Your task to perform on an android device: toggle improve location accuracy Image 0: 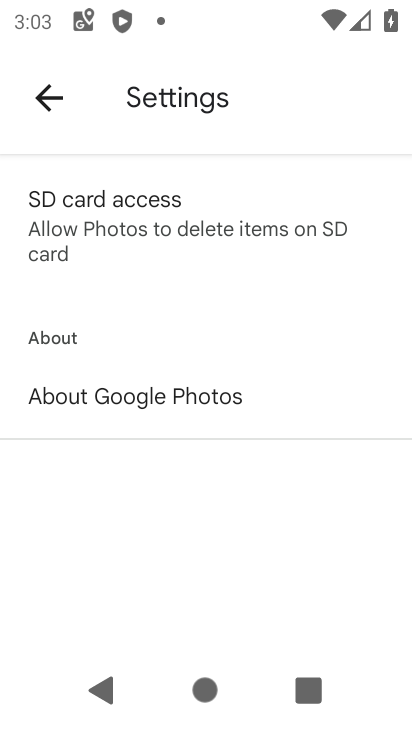
Step 0: press home button
Your task to perform on an android device: toggle improve location accuracy Image 1: 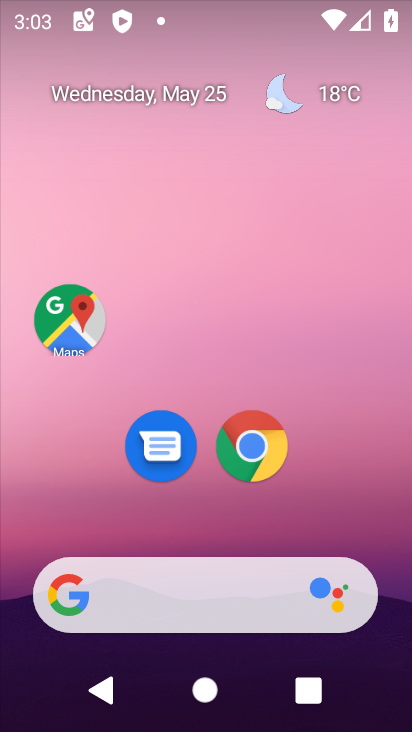
Step 1: drag from (251, 569) to (265, 80)
Your task to perform on an android device: toggle improve location accuracy Image 2: 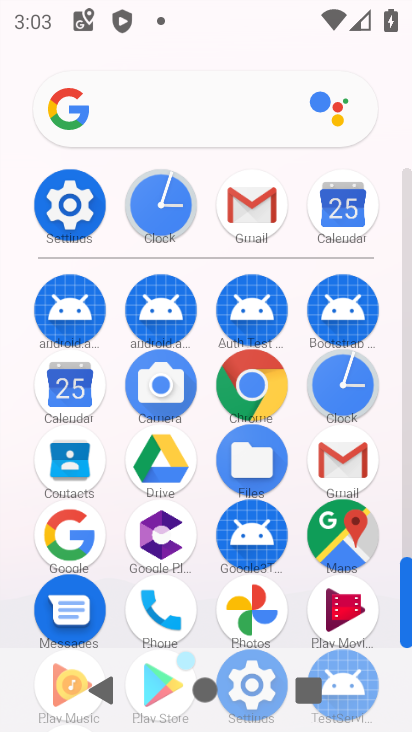
Step 2: click (77, 216)
Your task to perform on an android device: toggle improve location accuracy Image 3: 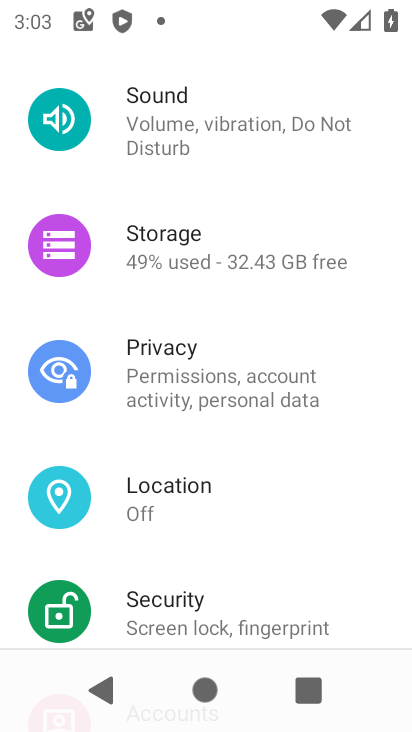
Step 3: click (177, 498)
Your task to perform on an android device: toggle improve location accuracy Image 4: 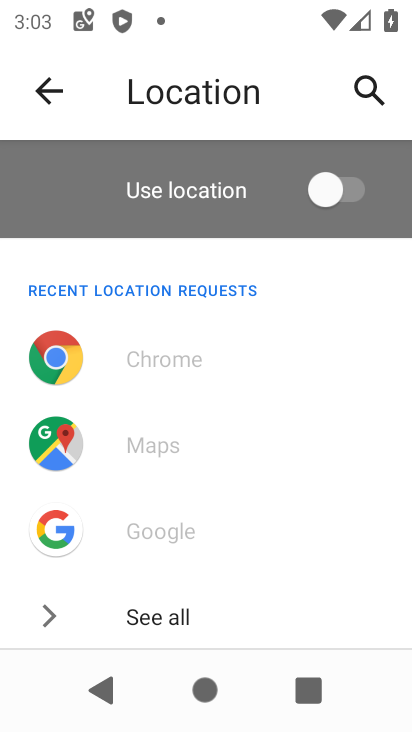
Step 4: click (315, 206)
Your task to perform on an android device: toggle improve location accuracy Image 5: 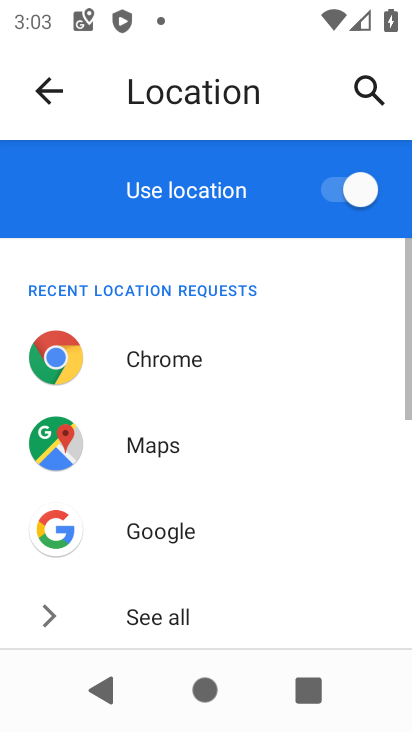
Step 5: drag from (237, 530) to (254, 101)
Your task to perform on an android device: toggle improve location accuracy Image 6: 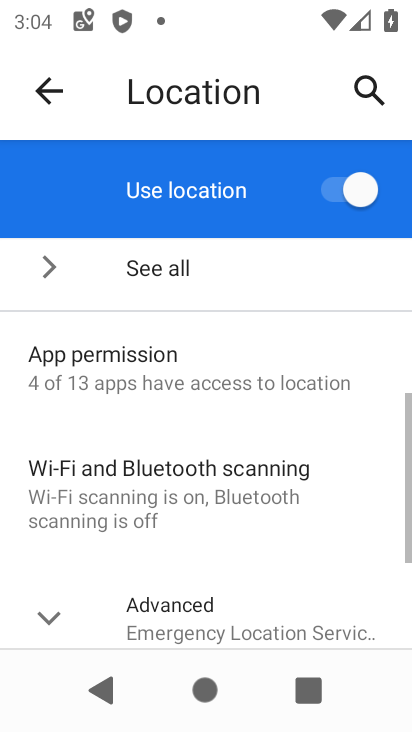
Step 6: click (170, 609)
Your task to perform on an android device: toggle improve location accuracy Image 7: 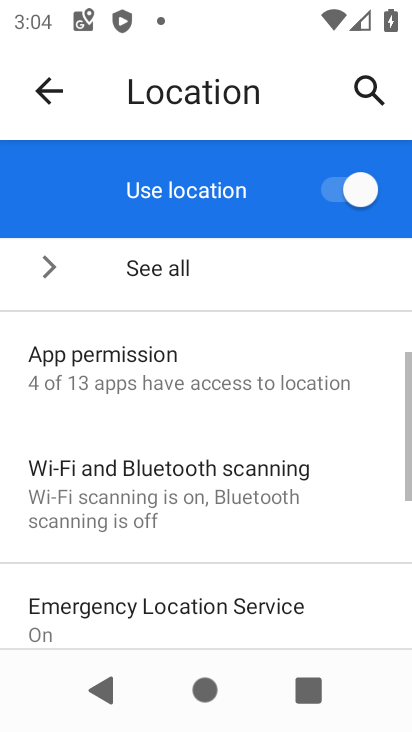
Step 7: drag from (236, 558) to (239, 166)
Your task to perform on an android device: toggle improve location accuracy Image 8: 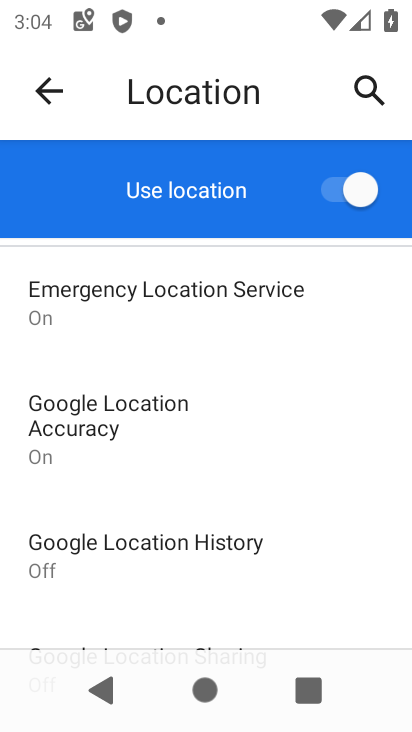
Step 8: click (144, 420)
Your task to perform on an android device: toggle improve location accuracy Image 9: 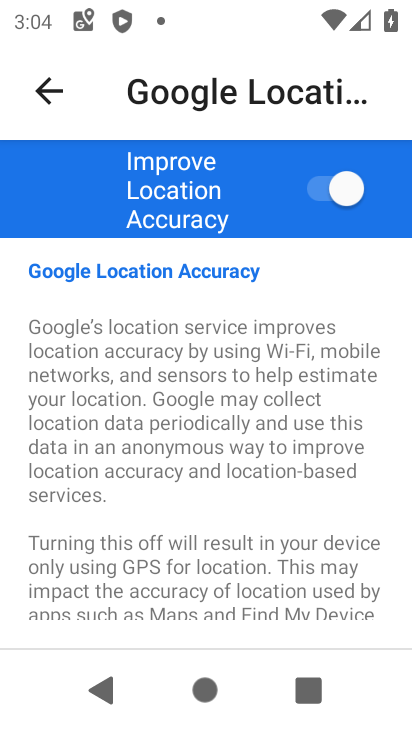
Step 9: click (325, 185)
Your task to perform on an android device: toggle improve location accuracy Image 10: 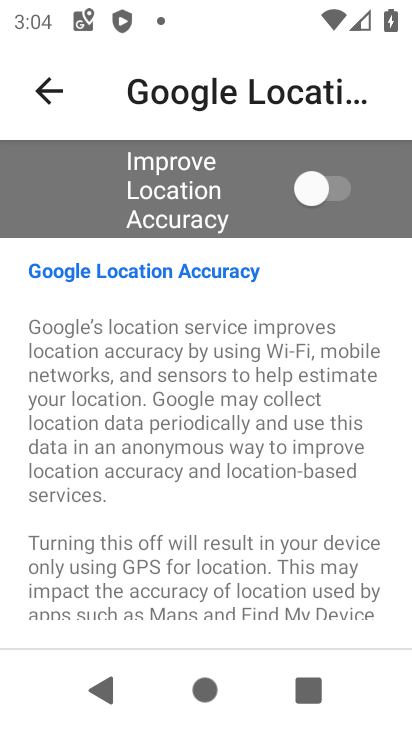
Step 10: task complete